Your task to perform on an android device: Turn off the flashlight Image 0: 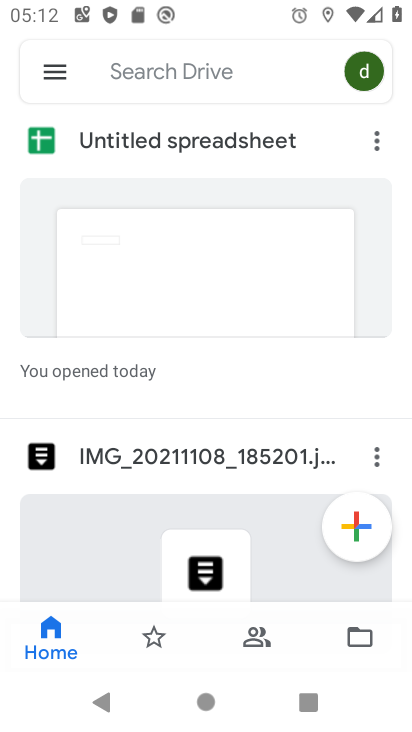
Step 0: press home button
Your task to perform on an android device: Turn off the flashlight Image 1: 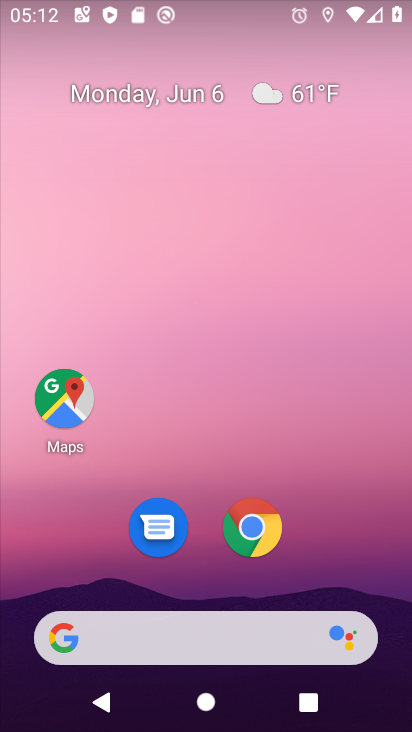
Step 1: drag from (369, 510) to (347, 72)
Your task to perform on an android device: Turn off the flashlight Image 2: 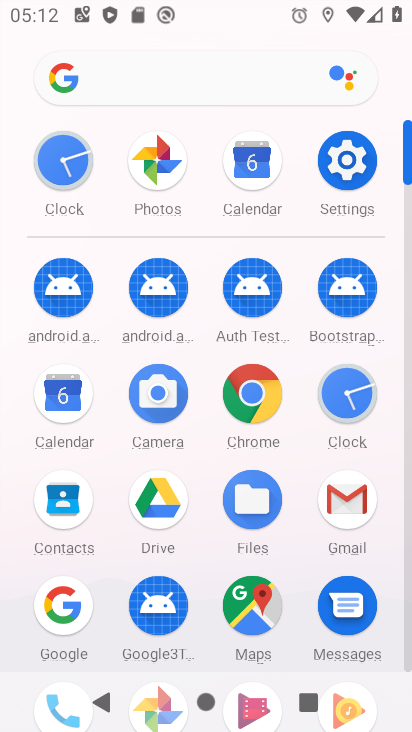
Step 2: click (350, 235)
Your task to perform on an android device: Turn off the flashlight Image 3: 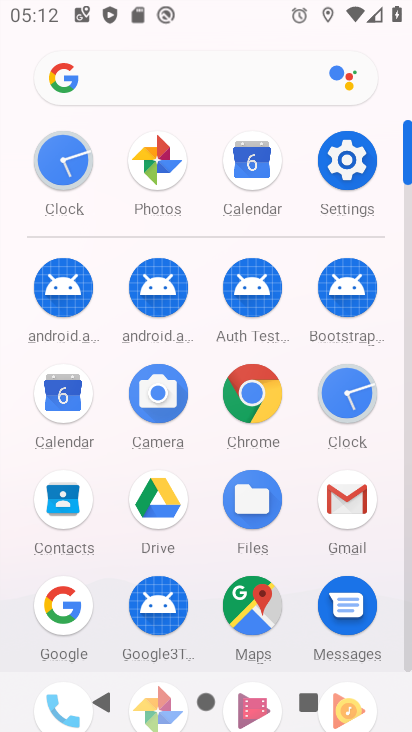
Step 3: click (326, 166)
Your task to perform on an android device: Turn off the flashlight Image 4: 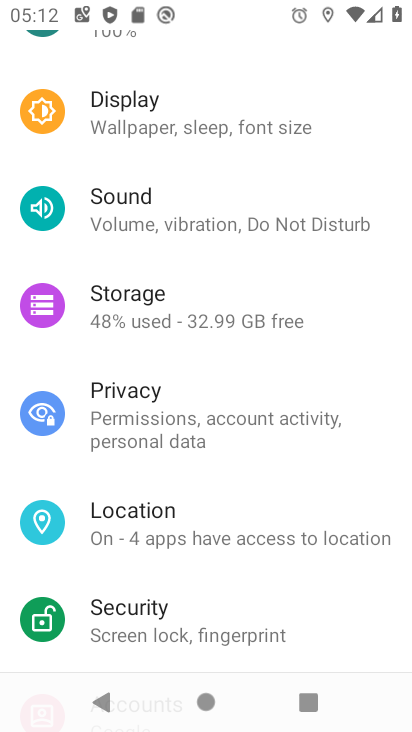
Step 4: click (125, 131)
Your task to perform on an android device: Turn off the flashlight Image 5: 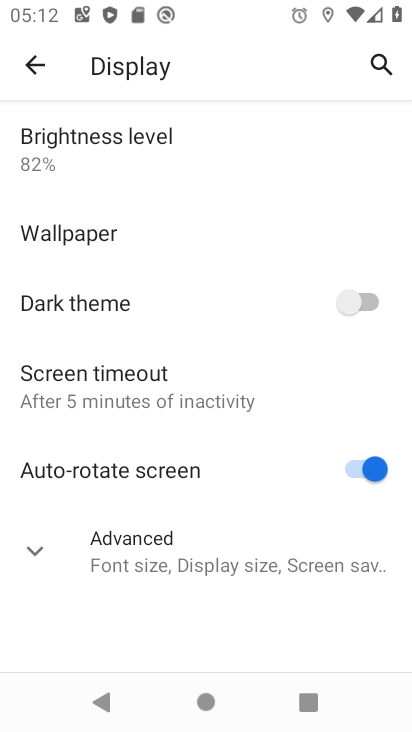
Step 5: task complete